Your task to perform on an android device: turn on location history Image 0: 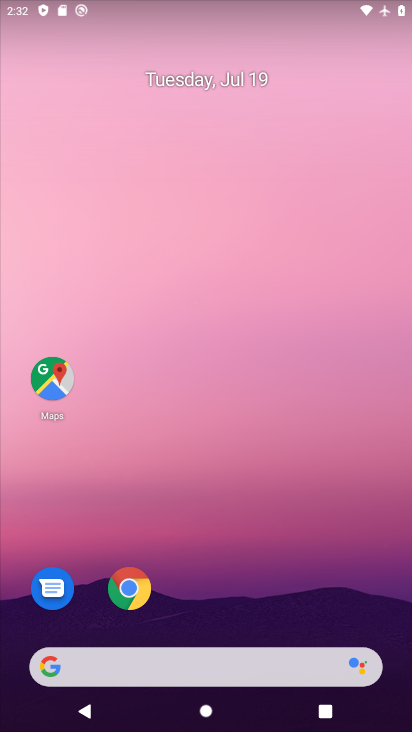
Step 0: press home button
Your task to perform on an android device: turn on location history Image 1: 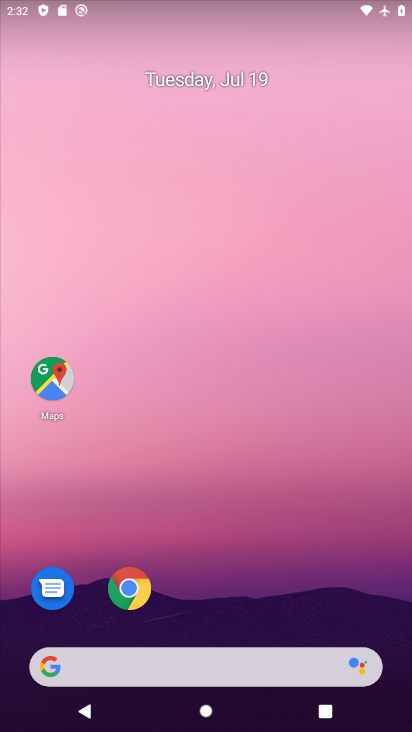
Step 1: drag from (211, 629) to (313, 166)
Your task to perform on an android device: turn on location history Image 2: 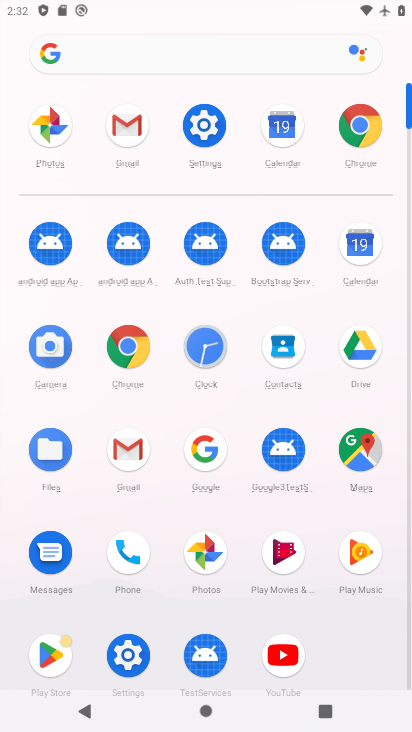
Step 2: click (208, 138)
Your task to perform on an android device: turn on location history Image 3: 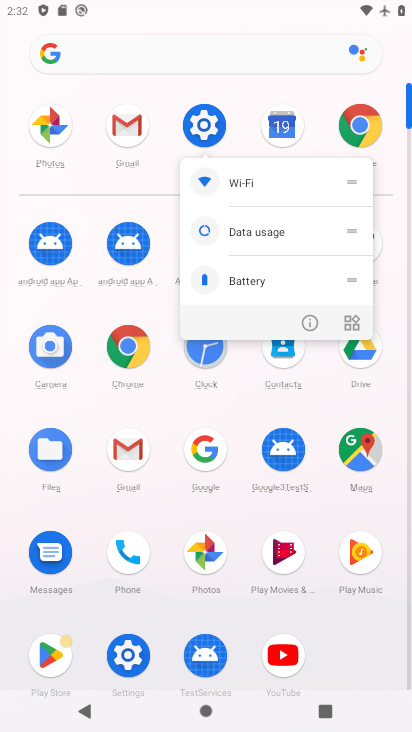
Step 3: click (208, 138)
Your task to perform on an android device: turn on location history Image 4: 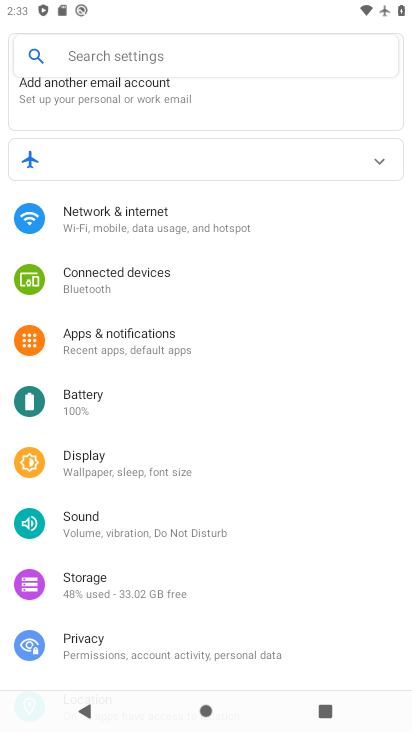
Step 4: drag from (308, 608) to (411, 338)
Your task to perform on an android device: turn on location history Image 5: 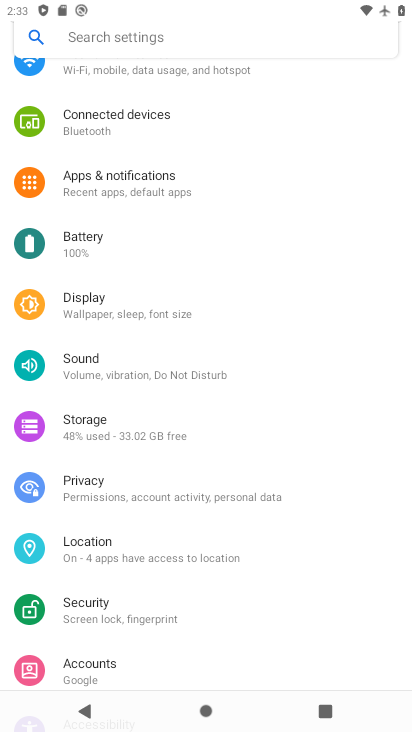
Step 5: drag from (251, 628) to (276, 165)
Your task to perform on an android device: turn on location history Image 6: 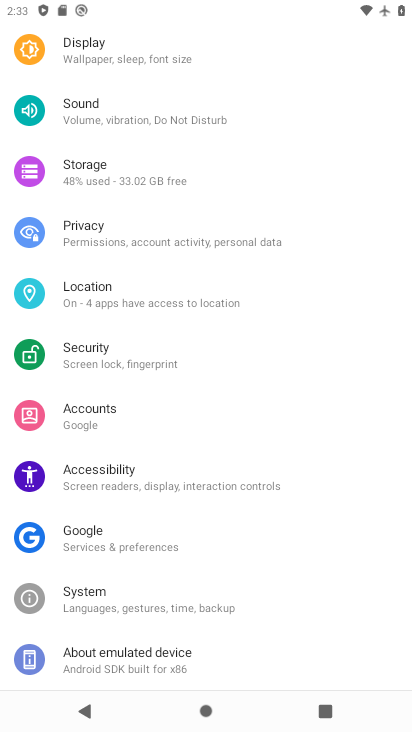
Step 6: click (71, 289)
Your task to perform on an android device: turn on location history Image 7: 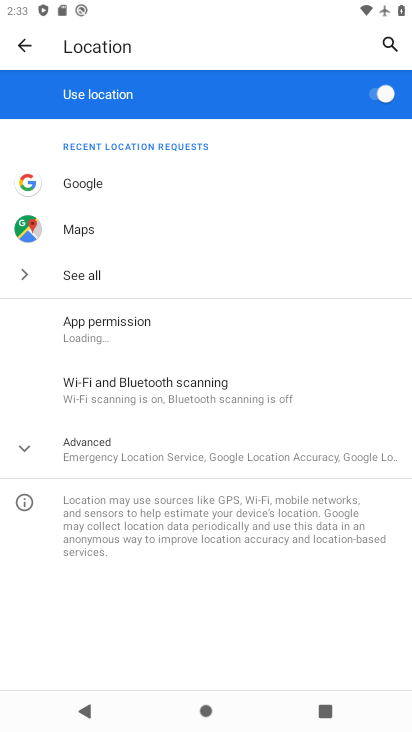
Step 7: click (131, 460)
Your task to perform on an android device: turn on location history Image 8: 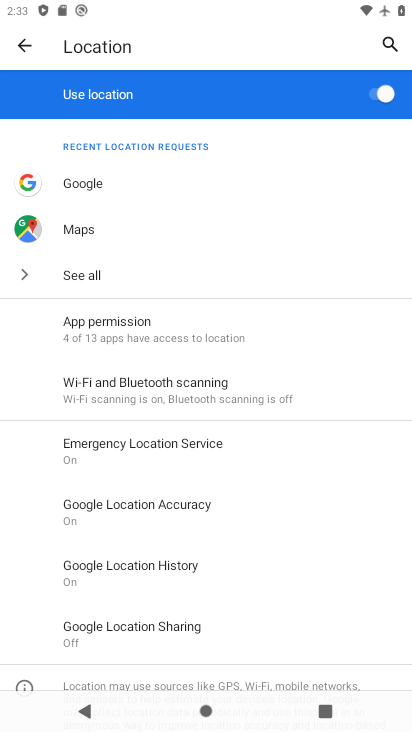
Step 8: click (171, 573)
Your task to perform on an android device: turn on location history Image 9: 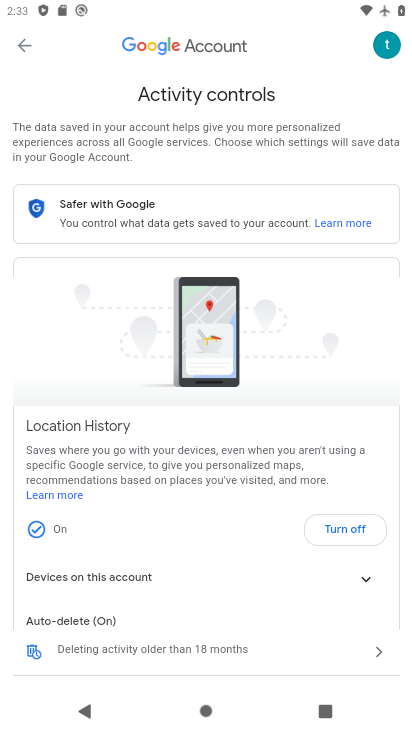
Step 9: task complete